Your task to perform on an android device: toggle notification dots Image 0: 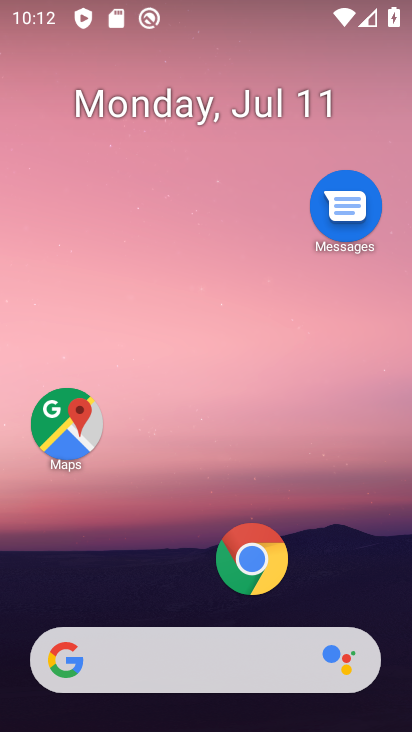
Step 0: drag from (375, 541) to (350, 161)
Your task to perform on an android device: toggle notification dots Image 1: 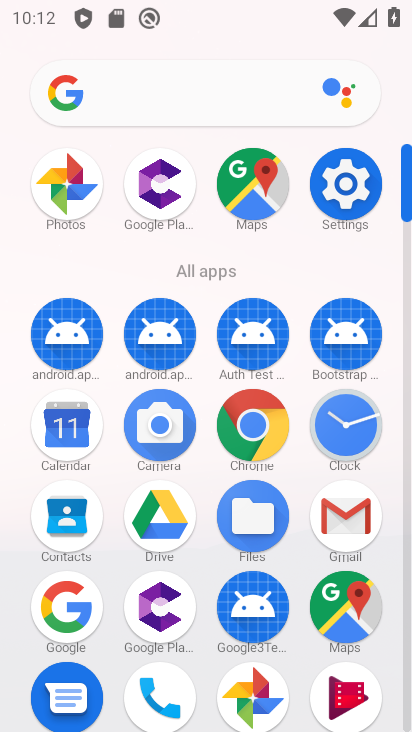
Step 1: click (344, 207)
Your task to perform on an android device: toggle notification dots Image 2: 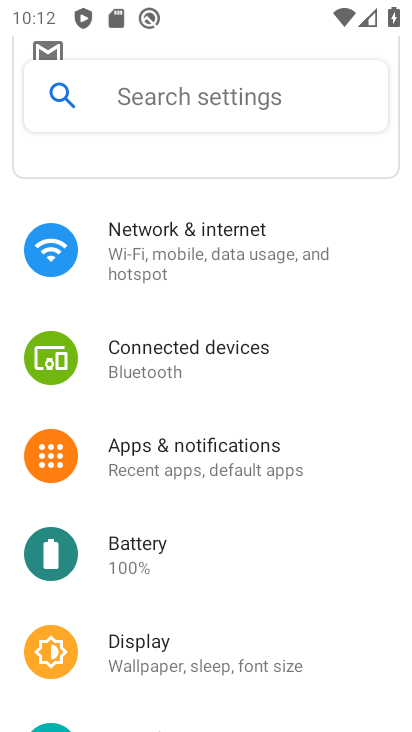
Step 2: click (268, 444)
Your task to perform on an android device: toggle notification dots Image 3: 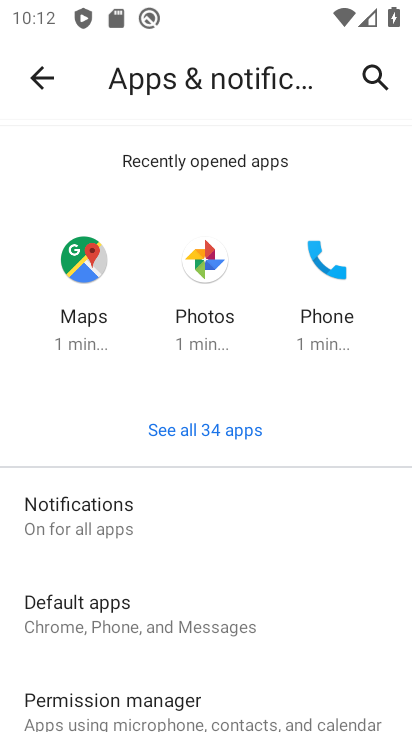
Step 3: click (197, 522)
Your task to perform on an android device: toggle notification dots Image 4: 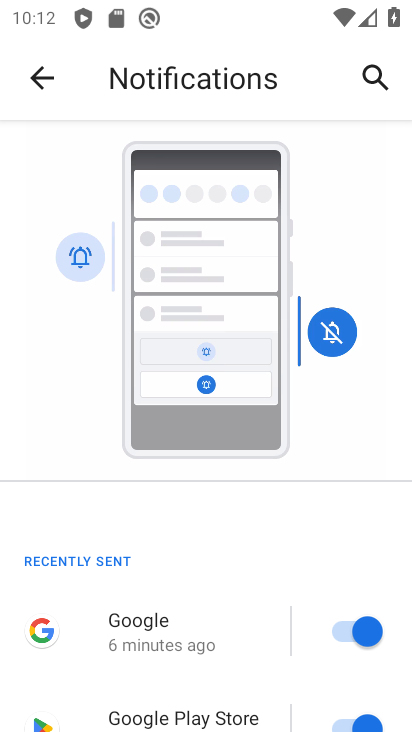
Step 4: drag from (282, 556) to (297, 427)
Your task to perform on an android device: toggle notification dots Image 5: 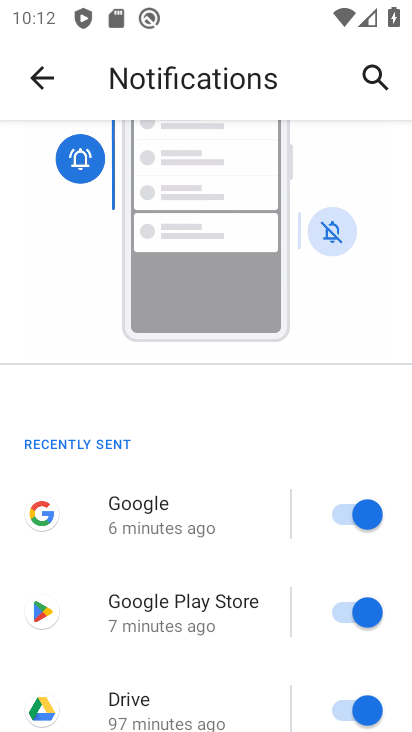
Step 5: drag from (262, 658) to (256, 534)
Your task to perform on an android device: toggle notification dots Image 6: 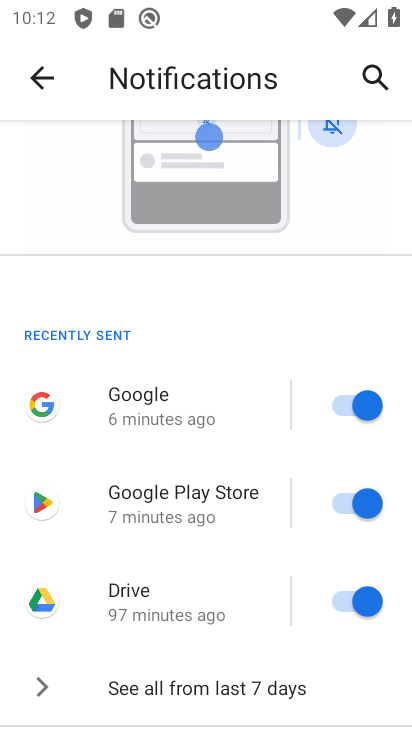
Step 6: drag from (259, 642) to (258, 470)
Your task to perform on an android device: toggle notification dots Image 7: 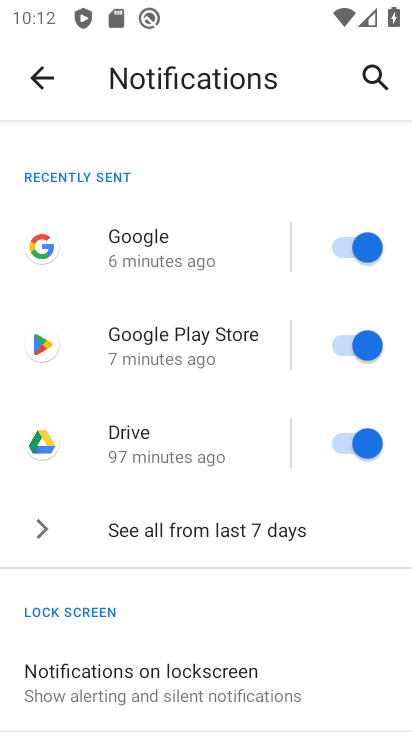
Step 7: drag from (287, 615) to (282, 421)
Your task to perform on an android device: toggle notification dots Image 8: 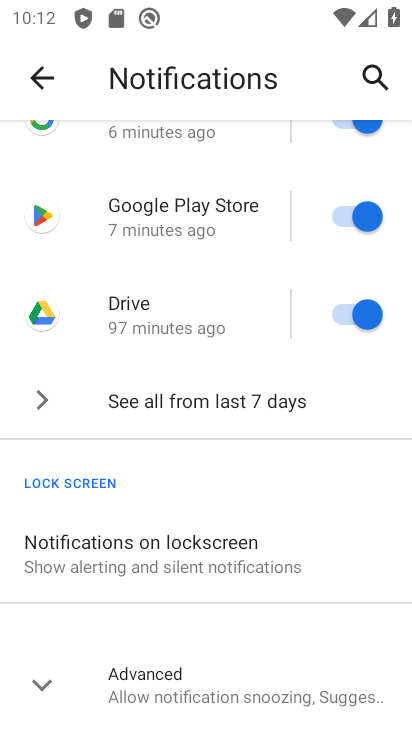
Step 8: click (253, 695)
Your task to perform on an android device: toggle notification dots Image 9: 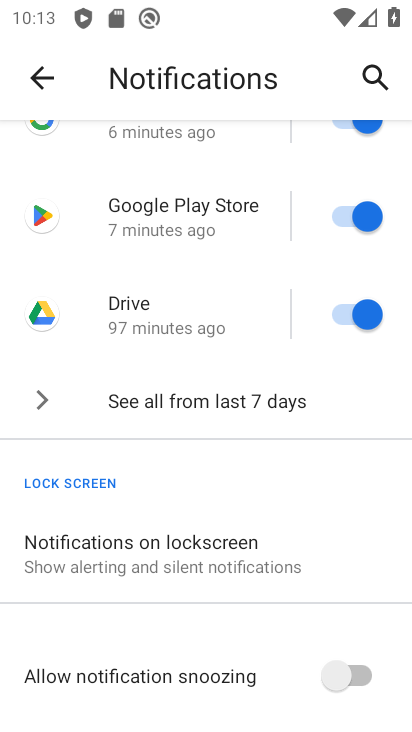
Step 9: drag from (248, 689) to (252, 536)
Your task to perform on an android device: toggle notification dots Image 10: 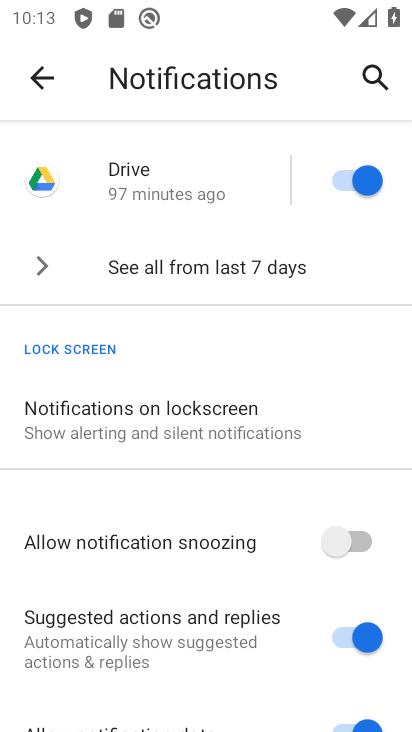
Step 10: drag from (292, 668) to (298, 524)
Your task to perform on an android device: toggle notification dots Image 11: 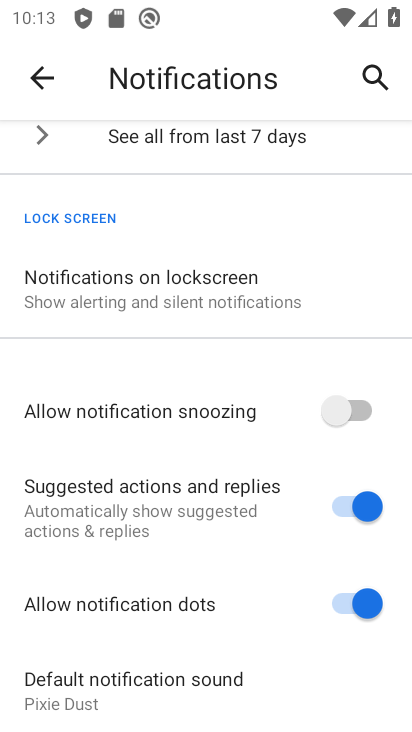
Step 11: click (360, 610)
Your task to perform on an android device: toggle notification dots Image 12: 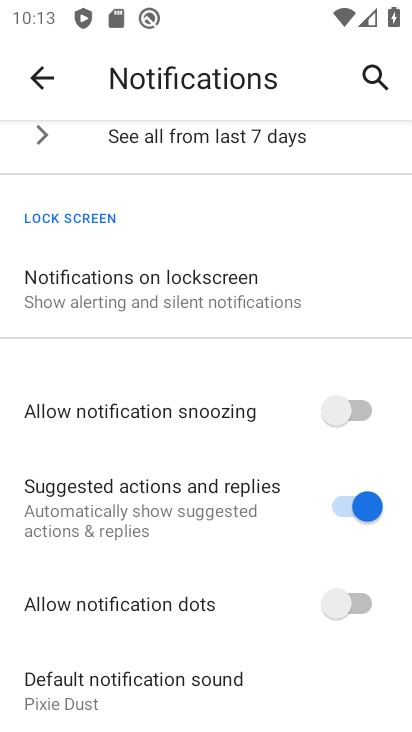
Step 12: task complete